Your task to perform on an android device: Open maps Image 0: 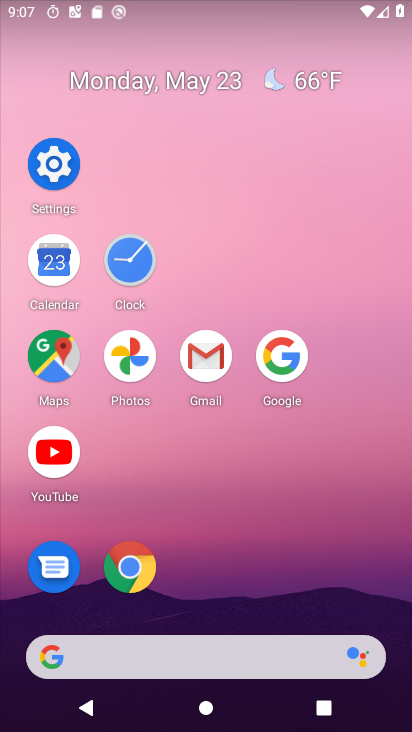
Step 0: click (72, 372)
Your task to perform on an android device: Open maps Image 1: 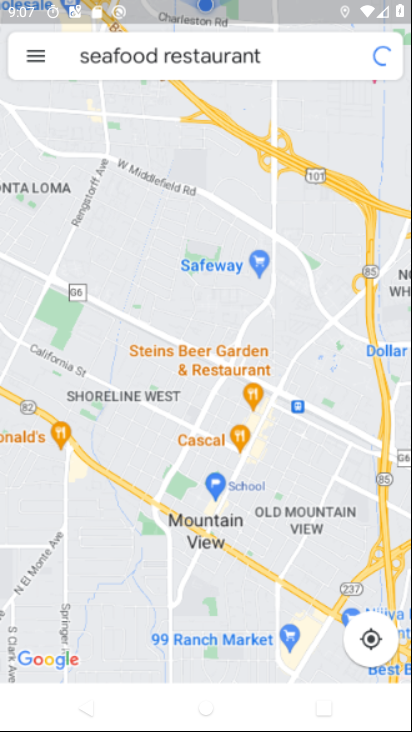
Step 1: task complete